Your task to perform on an android device: Clear the cart on walmart. Search for macbook air on walmart, select the first entry, add it to the cart, then select checkout. Image 0: 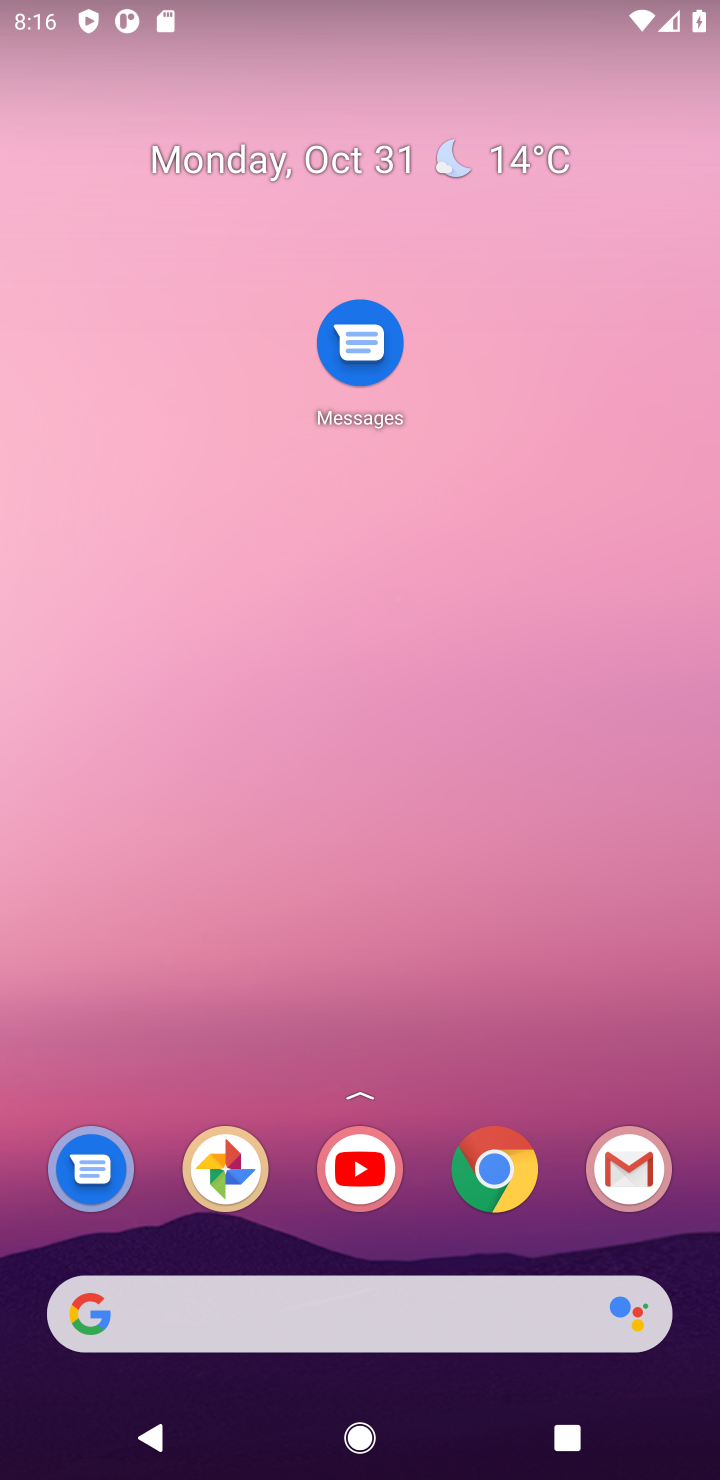
Step 0: drag from (301, 1262) to (317, 479)
Your task to perform on an android device: Clear the cart on walmart. Search for macbook air on walmart, select the first entry, add it to the cart, then select checkout. Image 1: 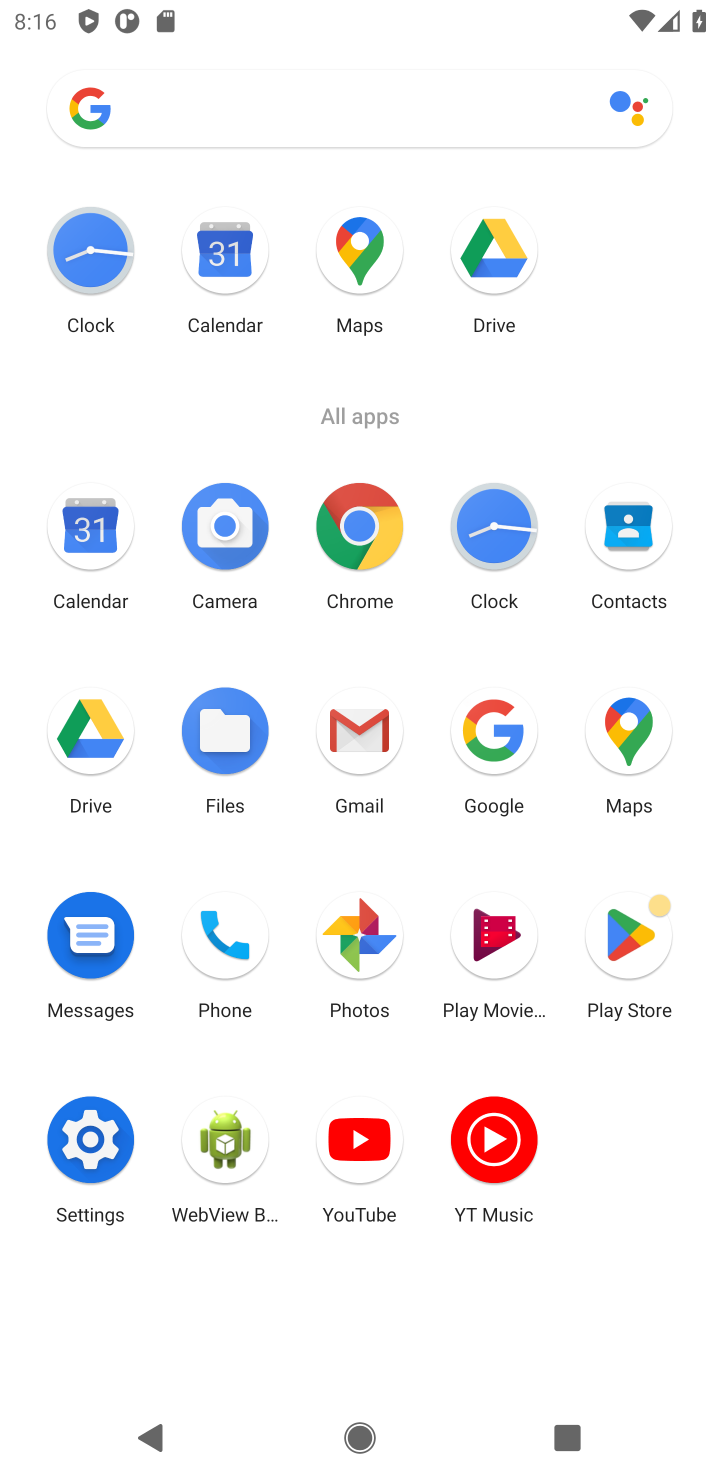
Step 1: click (474, 722)
Your task to perform on an android device: Clear the cart on walmart. Search for macbook air on walmart, select the first entry, add it to the cart, then select checkout. Image 2: 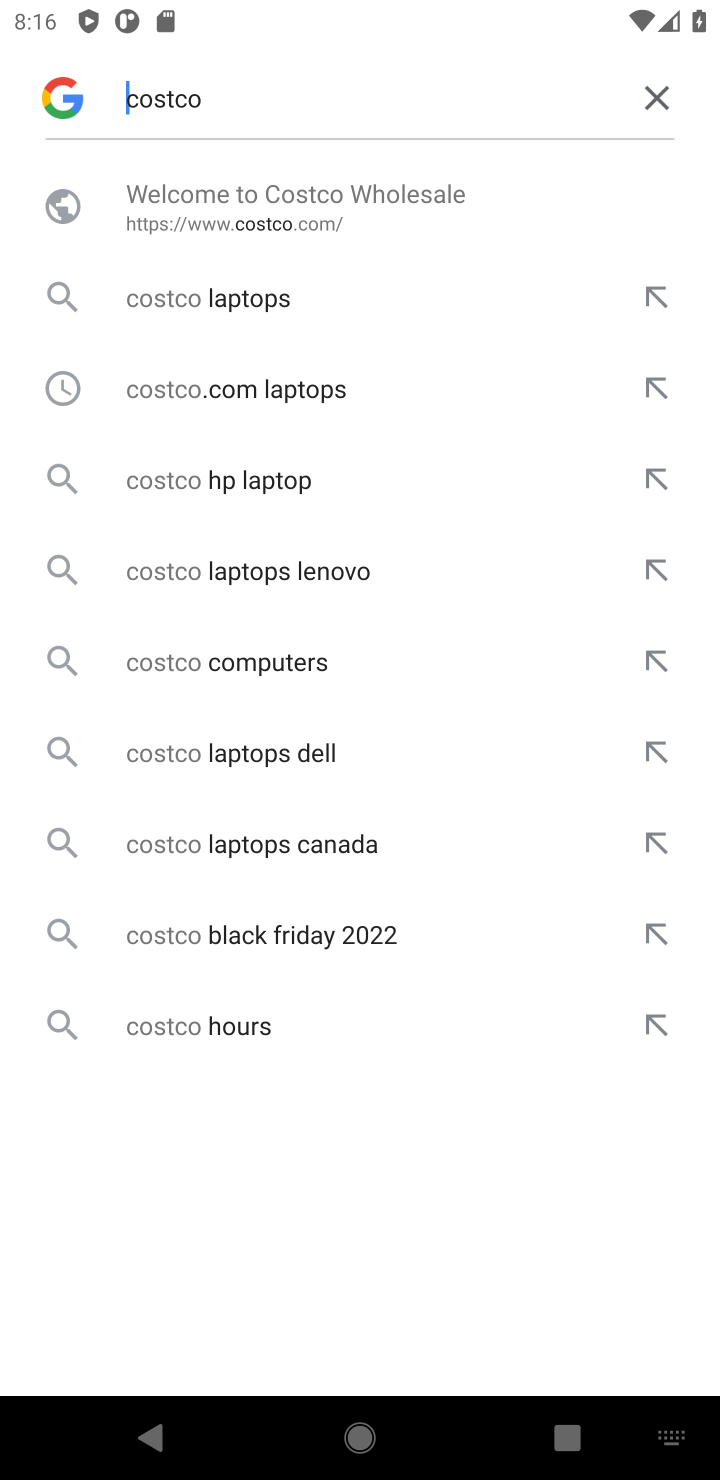
Step 2: click (666, 95)
Your task to perform on an android device: Clear the cart on walmart. Search for macbook air on walmart, select the first entry, add it to the cart, then select checkout. Image 3: 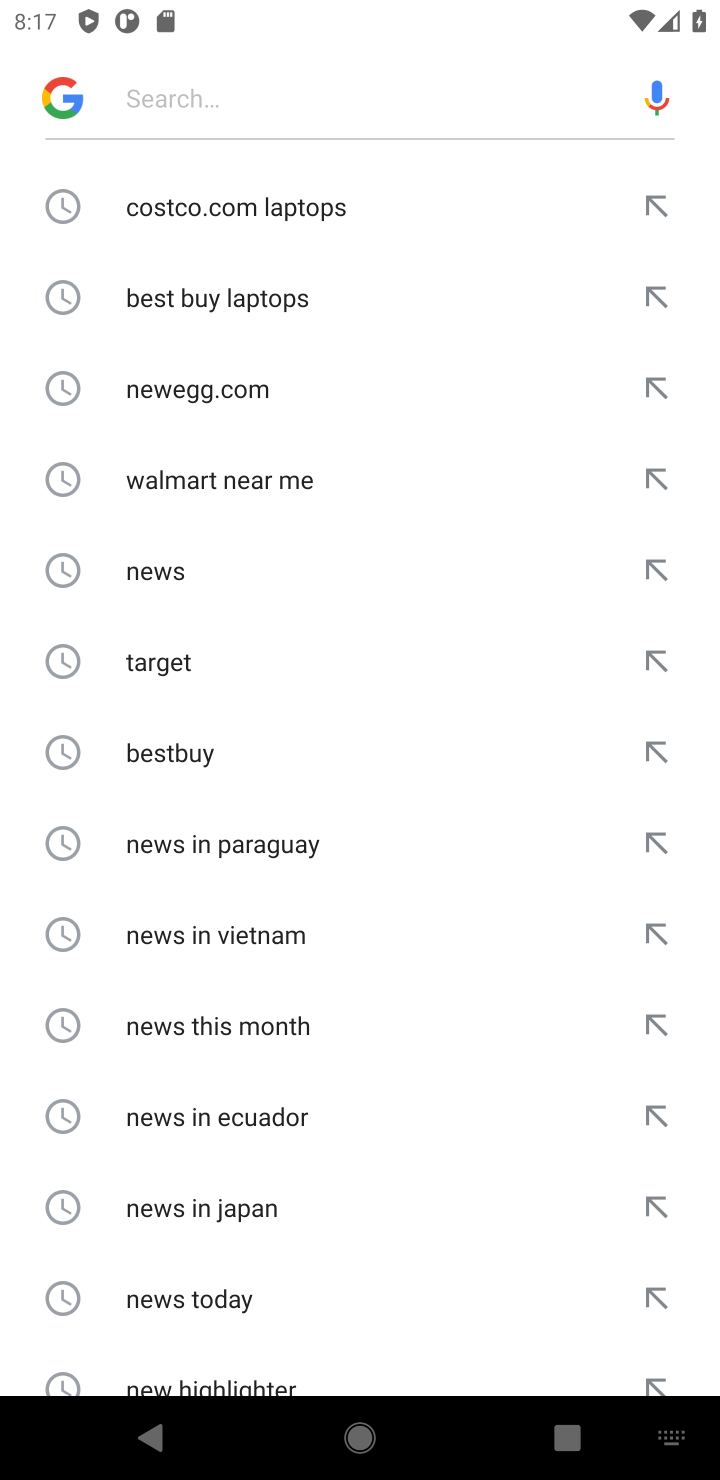
Step 3: click (305, 477)
Your task to perform on an android device: Clear the cart on walmart. Search for macbook air on walmart, select the first entry, add it to the cart, then select checkout. Image 4: 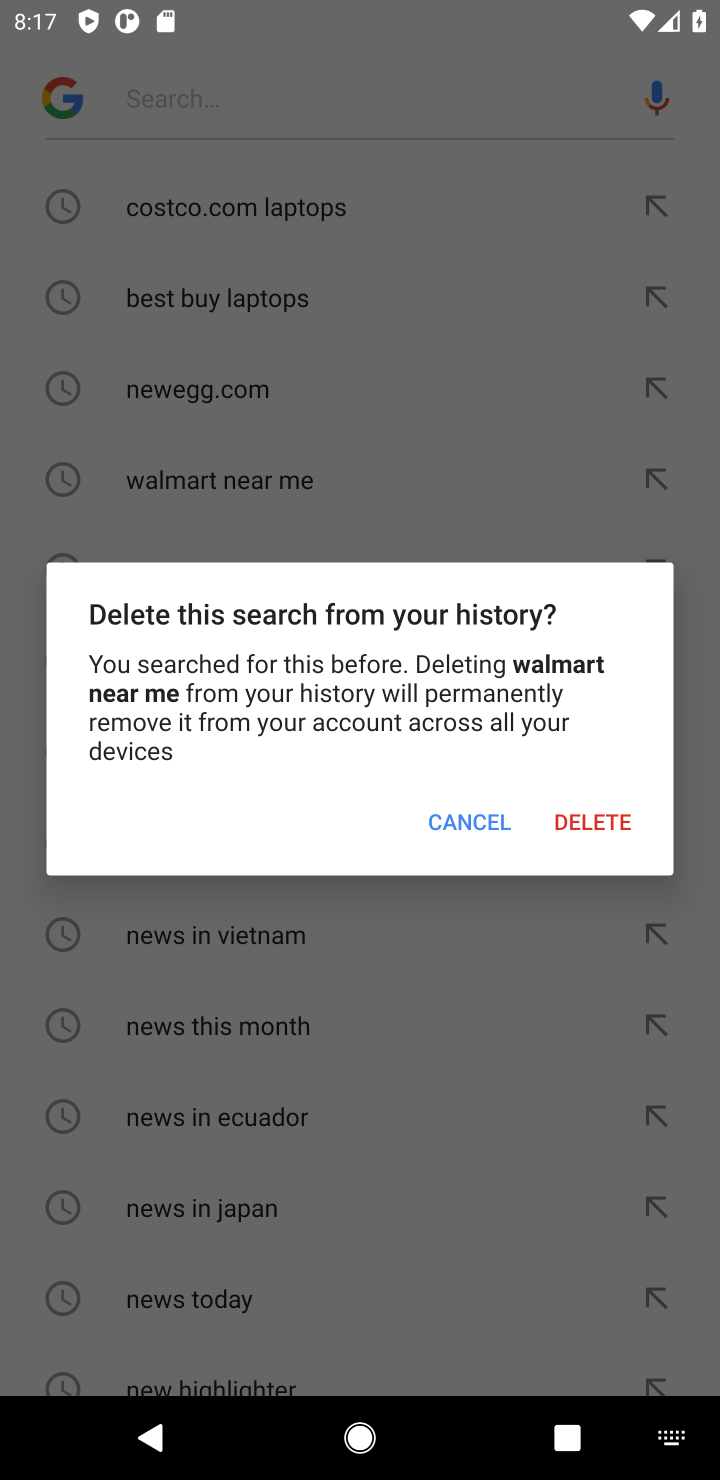
Step 4: click (467, 817)
Your task to perform on an android device: Clear the cart on walmart. Search for macbook air on walmart, select the first entry, add it to the cart, then select checkout. Image 5: 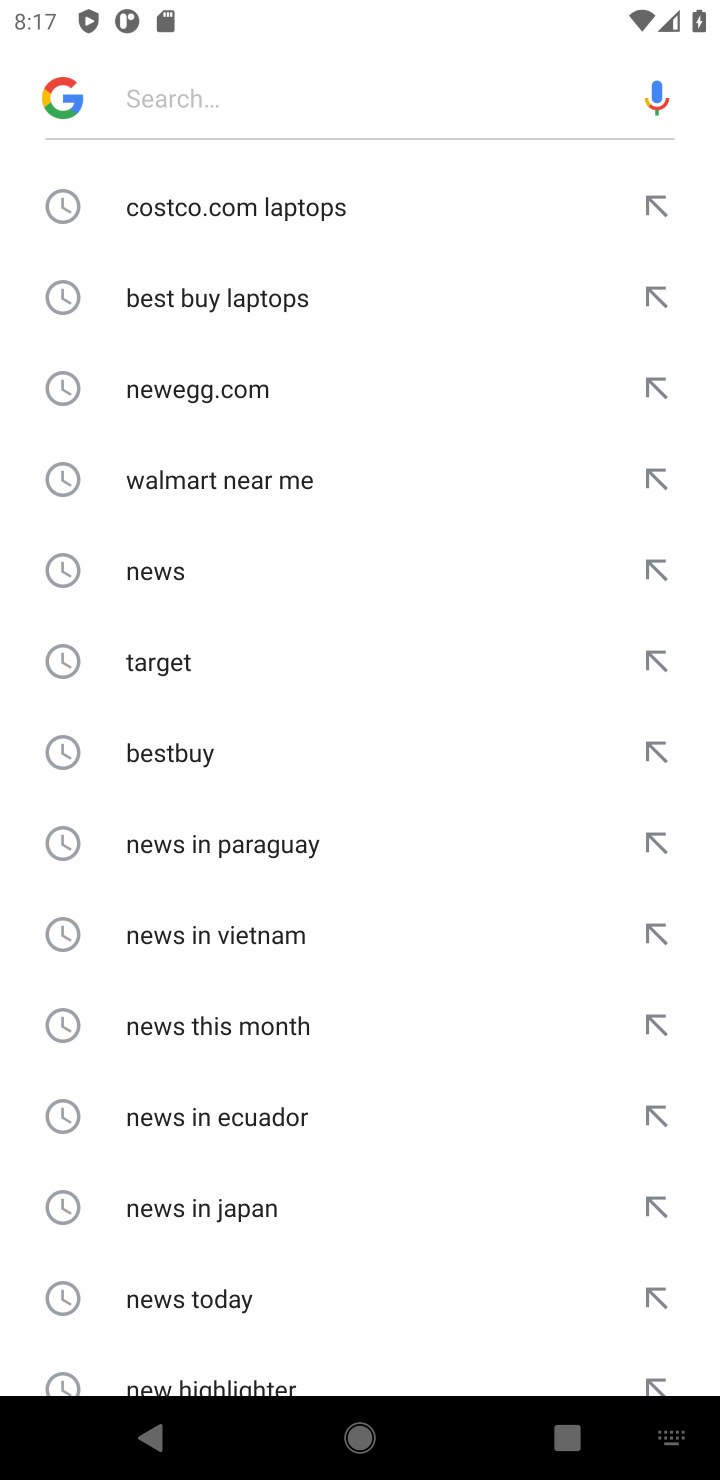
Step 5: click (331, 107)
Your task to perform on an android device: Clear the cart on walmart. Search for macbook air on walmart, select the first entry, add it to the cart, then select checkout. Image 6: 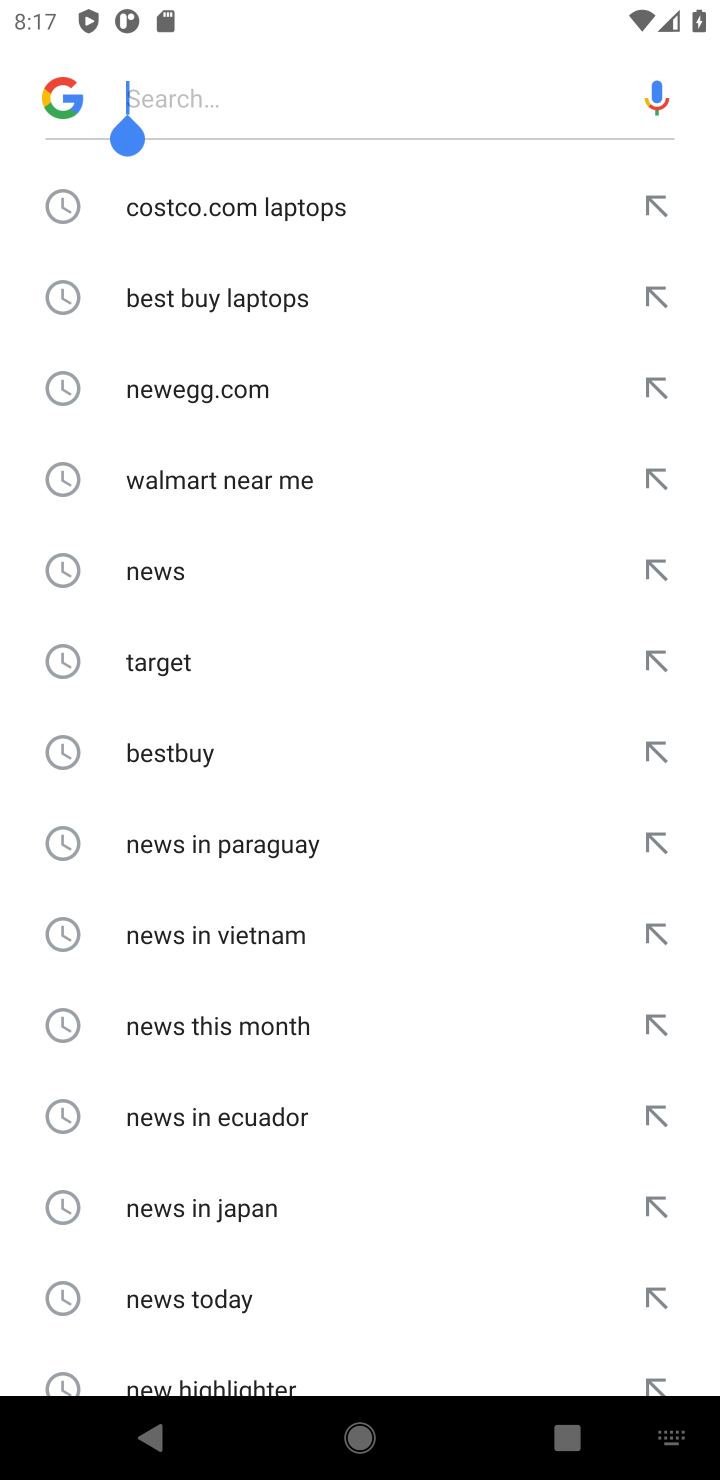
Step 6: type "walmart "
Your task to perform on an android device: Clear the cart on walmart. Search for macbook air on walmart, select the first entry, add it to the cart, then select checkout. Image 7: 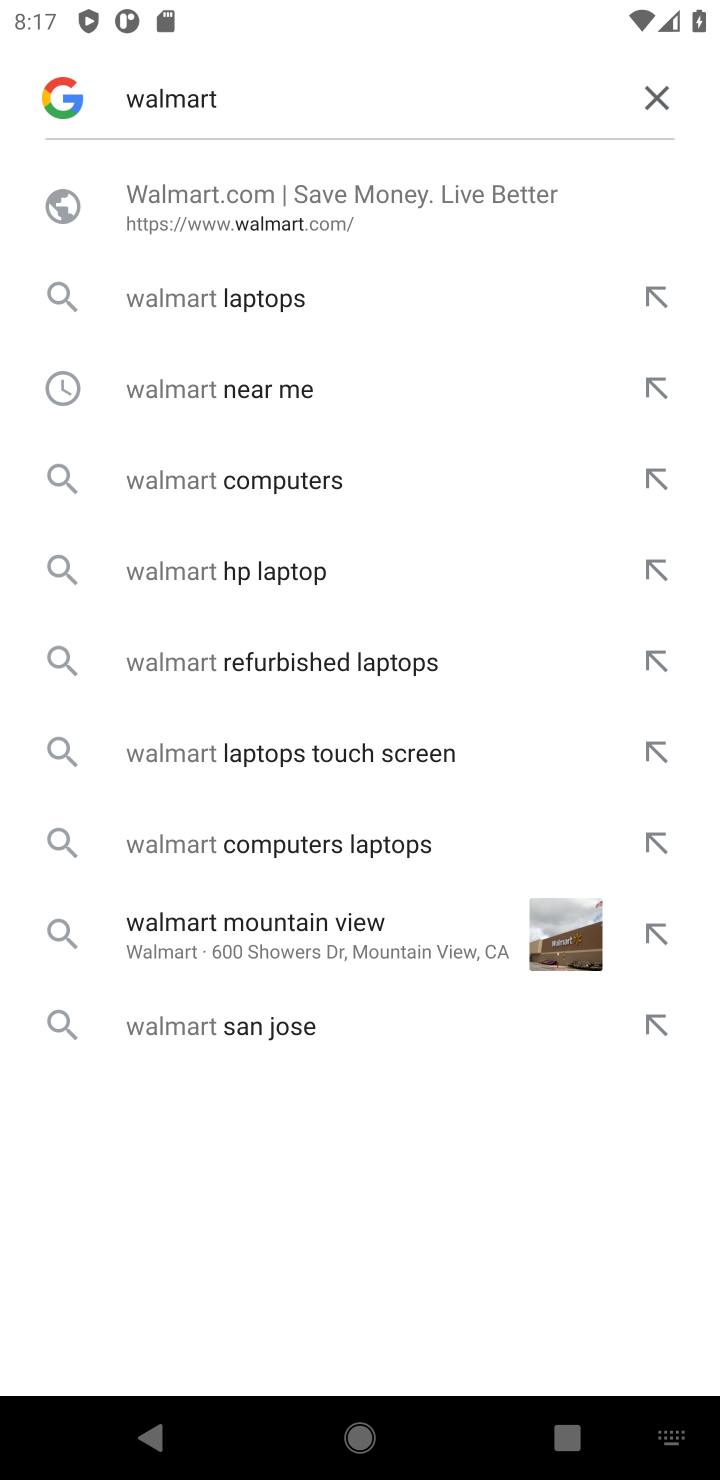
Step 7: click (359, 187)
Your task to perform on an android device: Clear the cart on walmart. Search for macbook air on walmart, select the first entry, add it to the cart, then select checkout. Image 8: 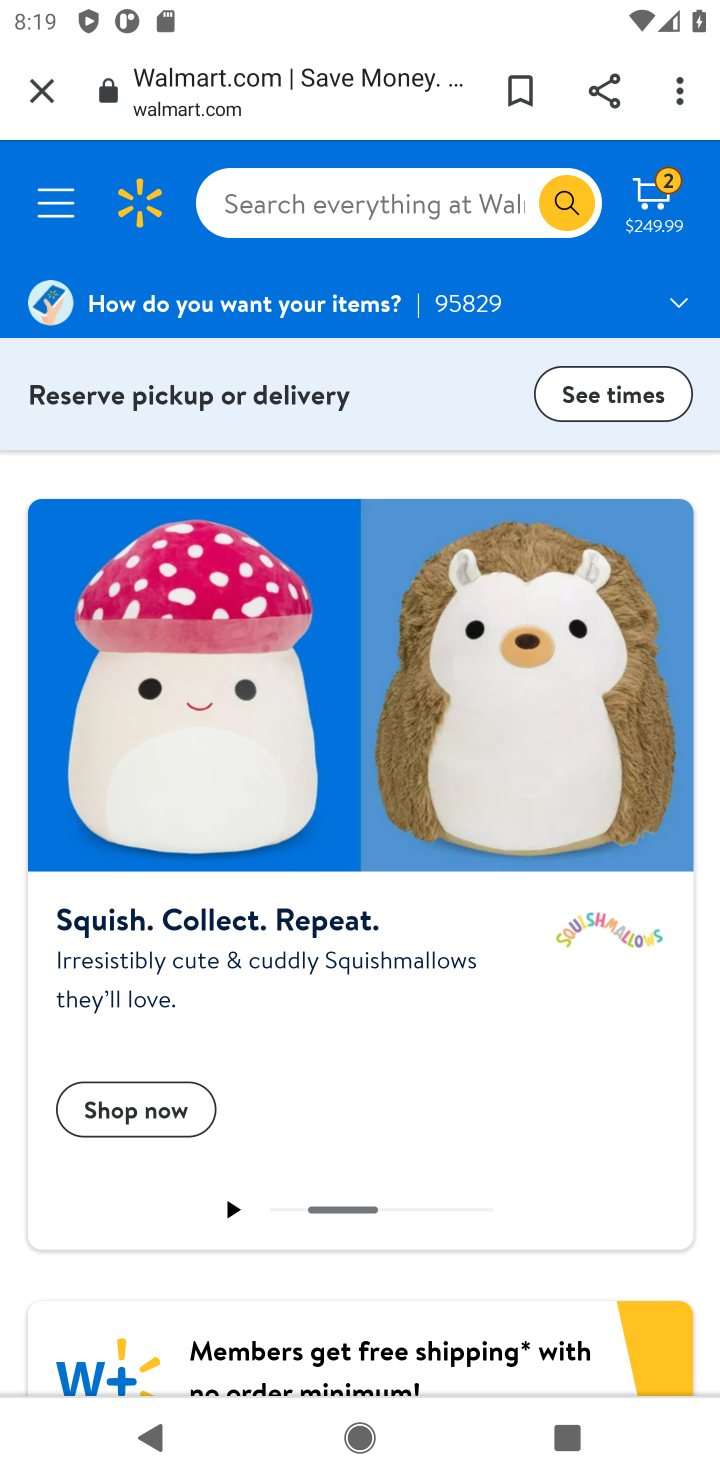
Step 8: click (369, 185)
Your task to perform on an android device: Clear the cart on walmart. Search for macbook air on walmart, select the first entry, add it to the cart, then select checkout. Image 9: 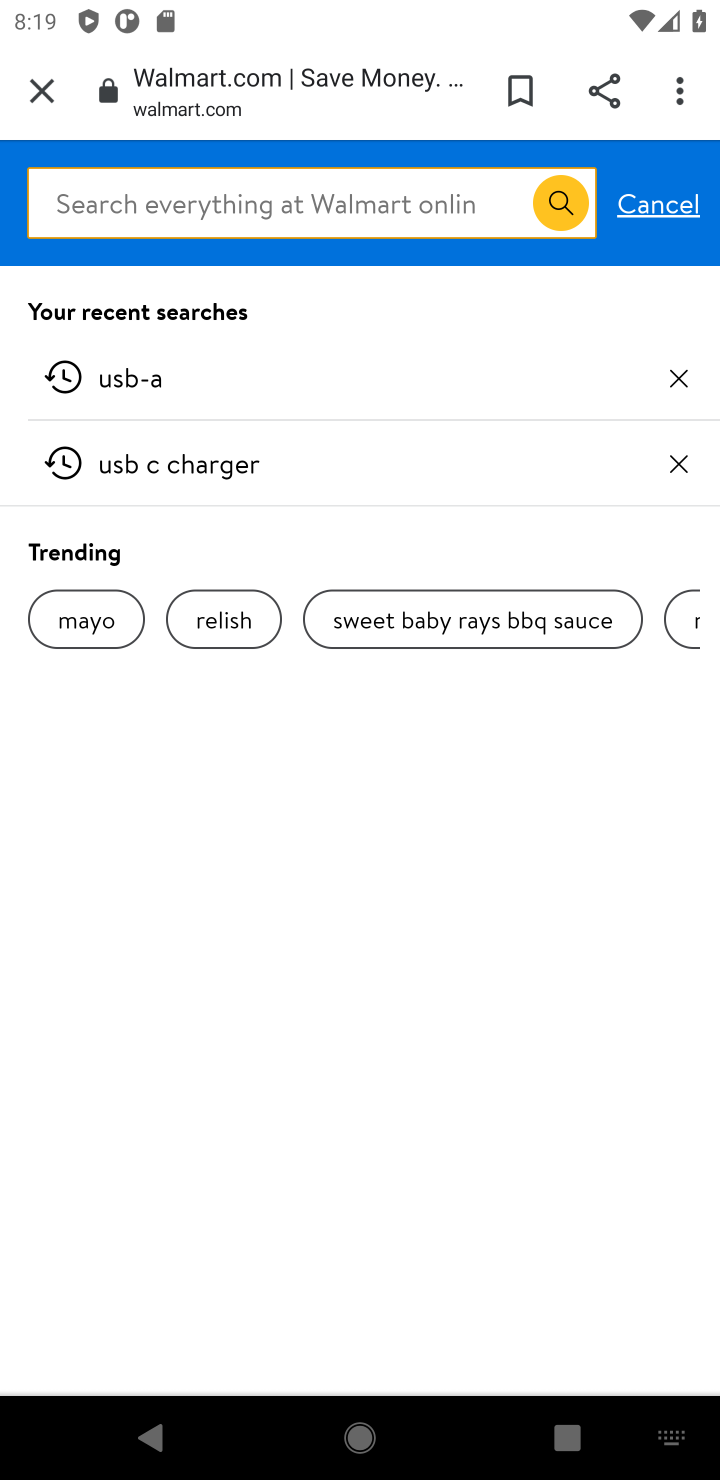
Step 9: type "macbook "
Your task to perform on an android device: Clear the cart on walmart. Search for macbook air on walmart, select the first entry, add it to the cart, then select checkout. Image 10: 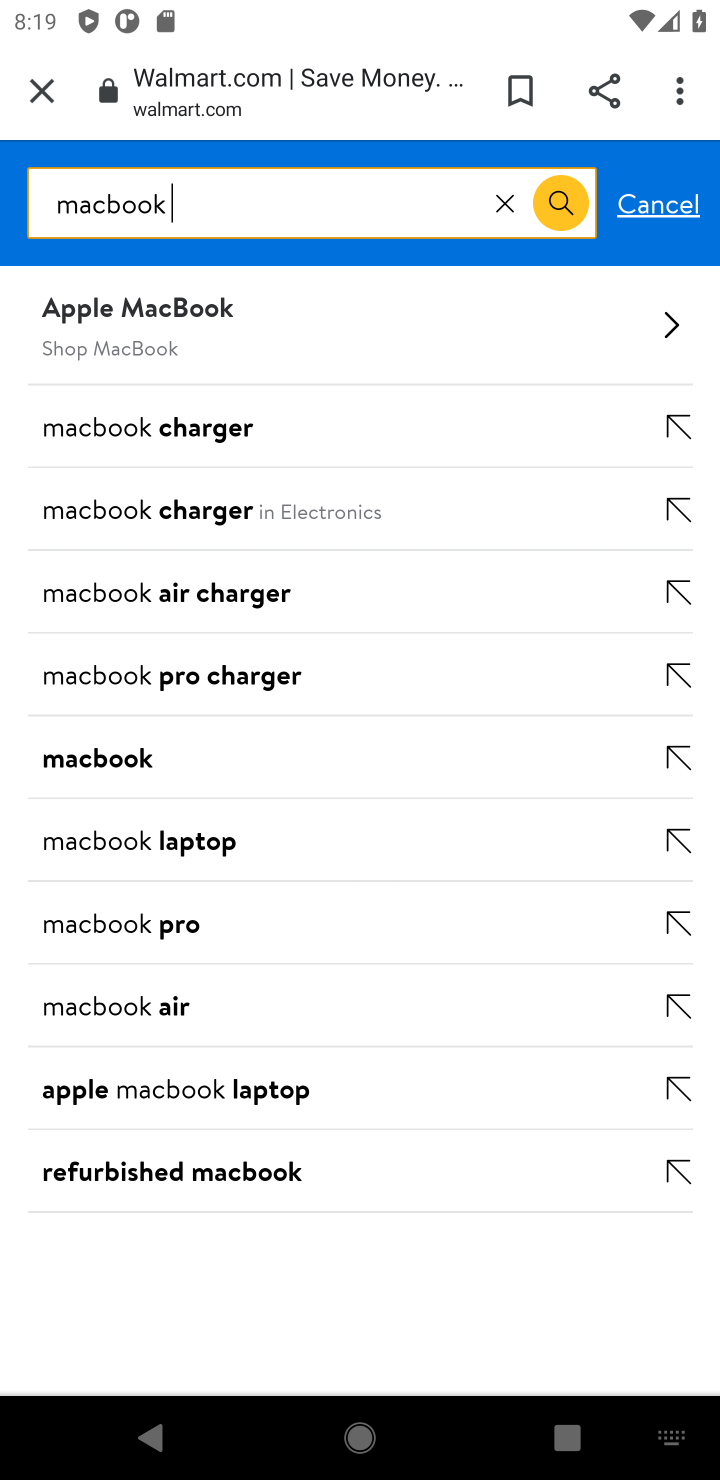
Step 10: click (135, 294)
Your task to perform on an android device: Clear the cart on walmart. Search for macbook air on walmart, select the first entry, add it to the cart, then select checkout. Image 11: 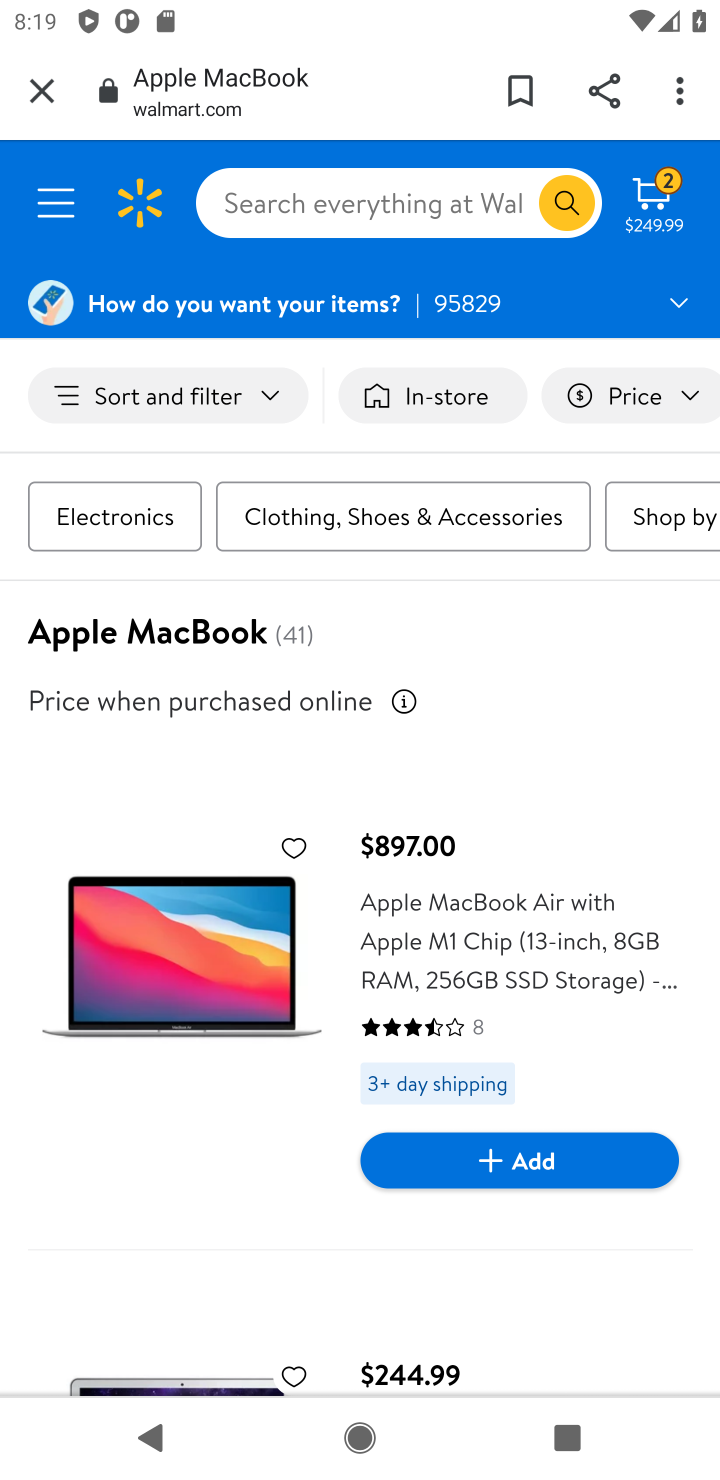
Step 11: click (436, 1168)
Your task to perform on an android device: Clear the cart on walmart. Search for macbook air on walmart, select the first entry, add it to the cart, then select checkout. Image 12: 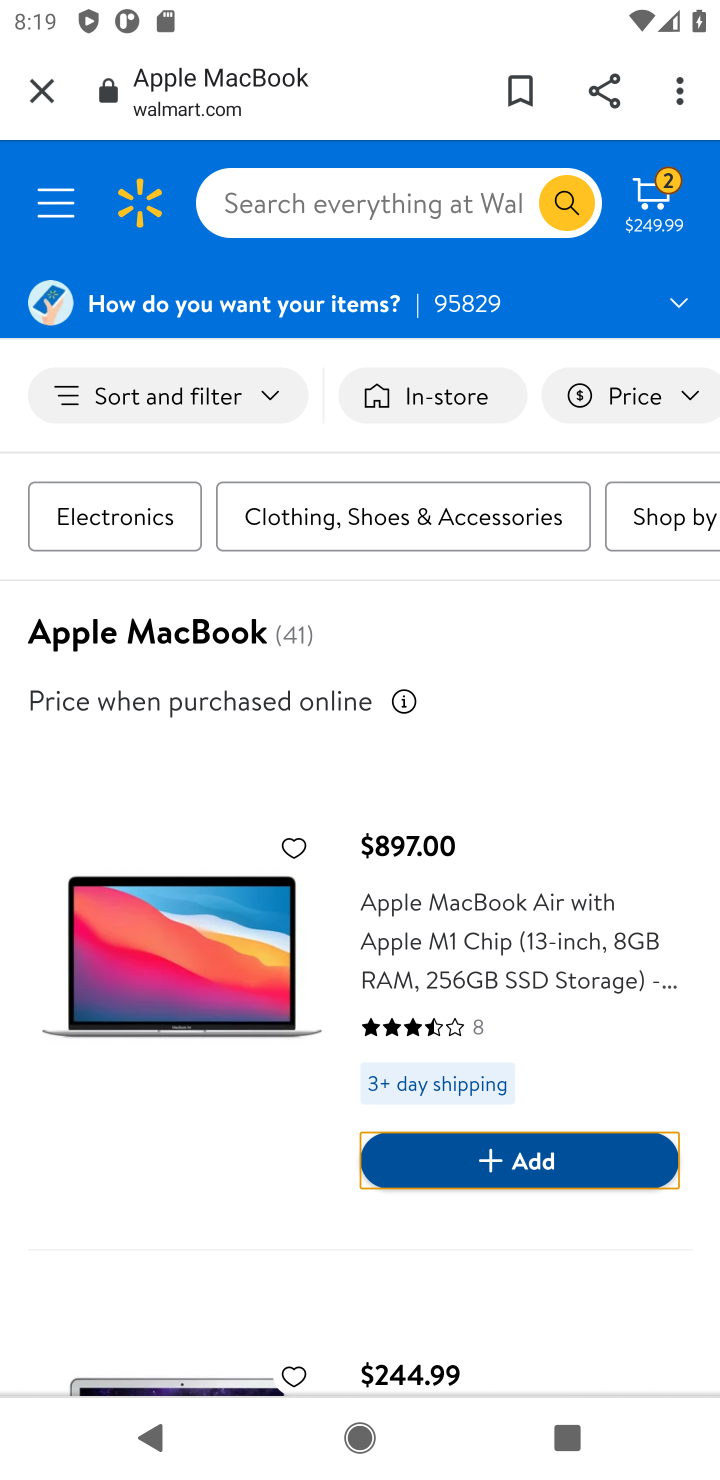
Step 12: click (449, 1150)
Your task to perform on an android device: Clear the cart on walmart. Search for macbook air on walmart, select the first entry, add it to the cart, then select checkout. Image 13: 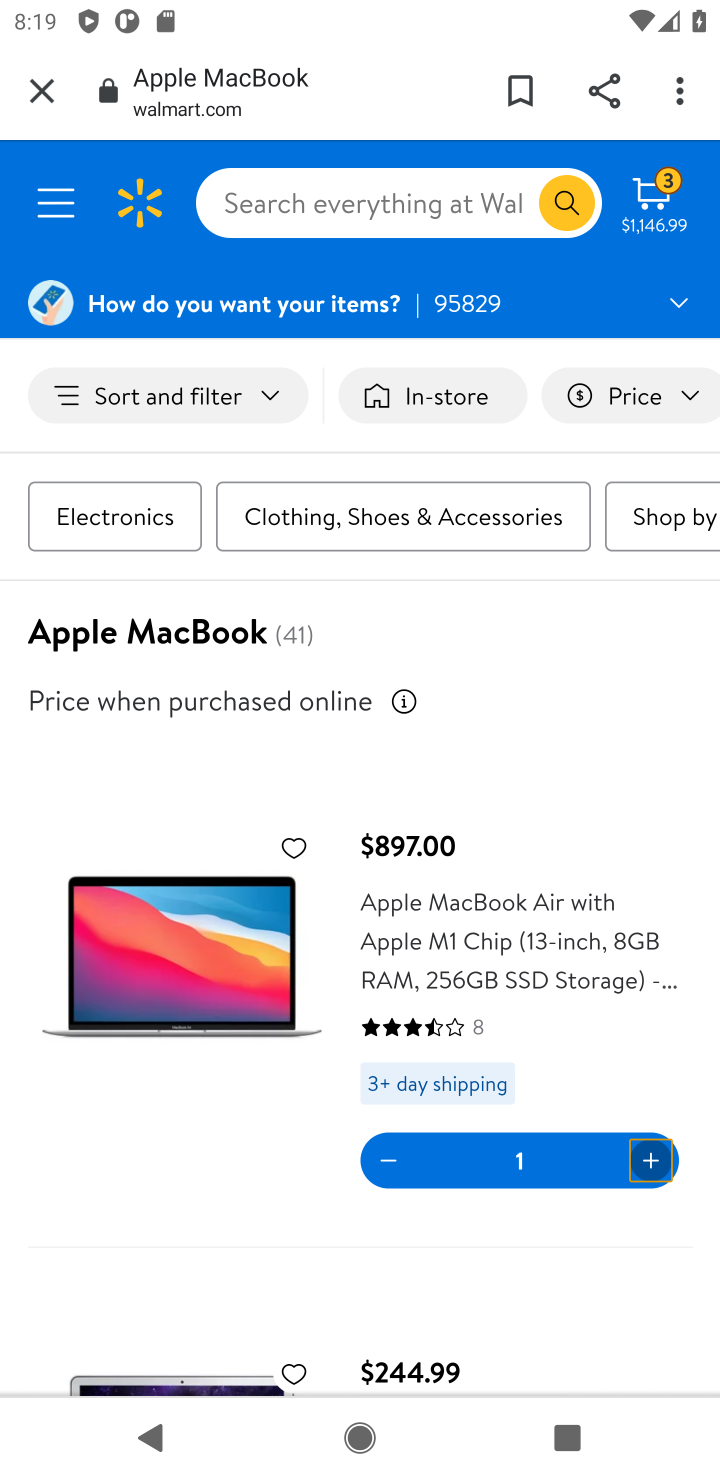
Step 13: click (416, 1178)
Your task to perform on an android device: Clear the cart on walmart. Search for macbook air on walmart, select the first entry, add it to the cart, then select checkout. Image 14: 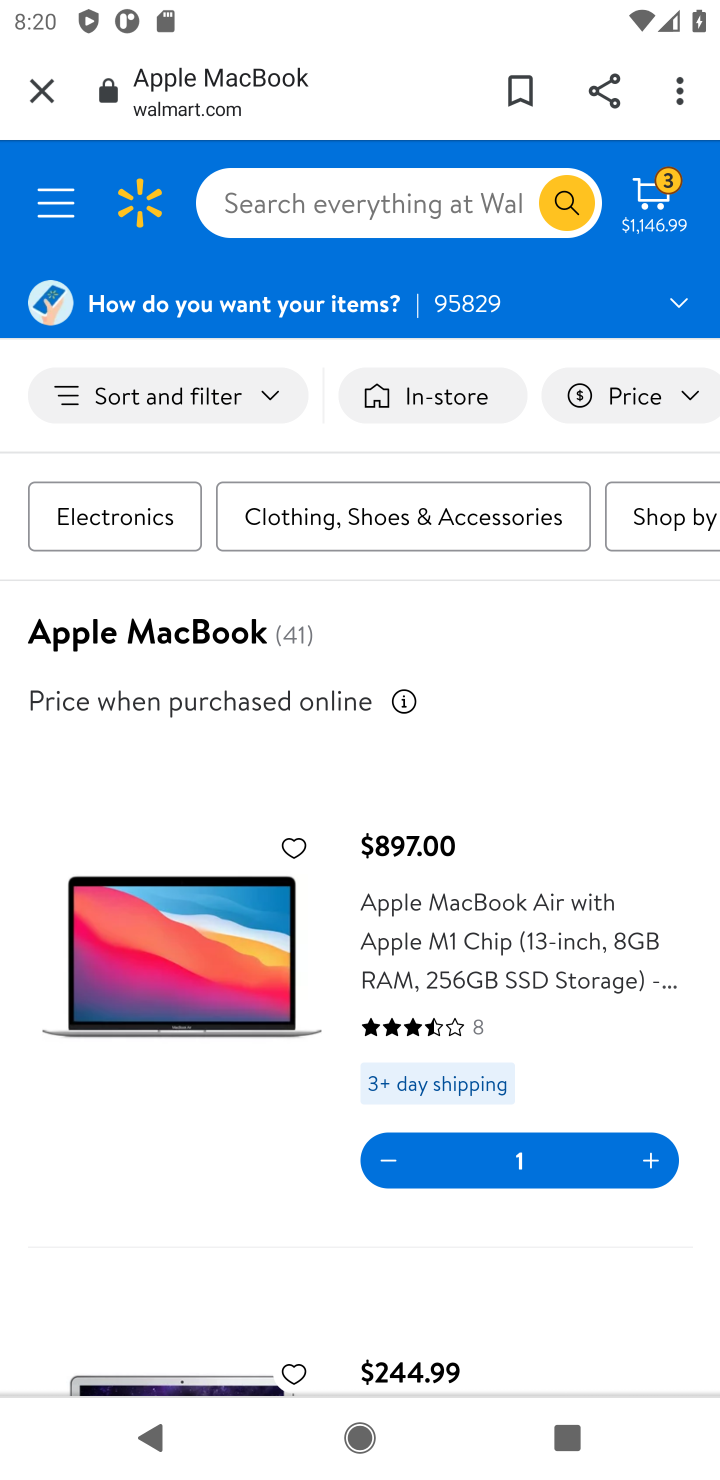
Step 14: task complete